Your task to perform on an android device: turn on airplane mode Image 0: 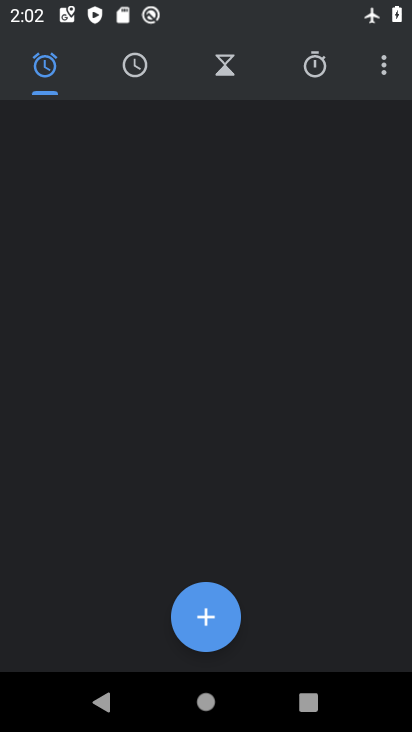
Step 0: drag from (340, 580) to (324, 138)
Your task to perform on an android device: turn on airplane mode Image 1: 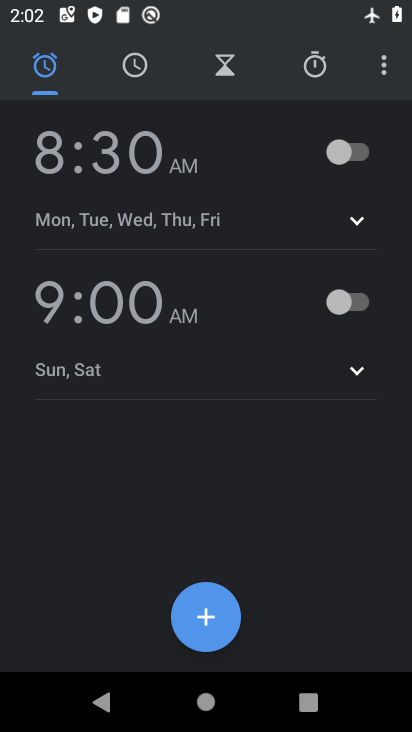
Step 1: press home button
Your task to perform on an android device: turn on airplane mode Image 2: 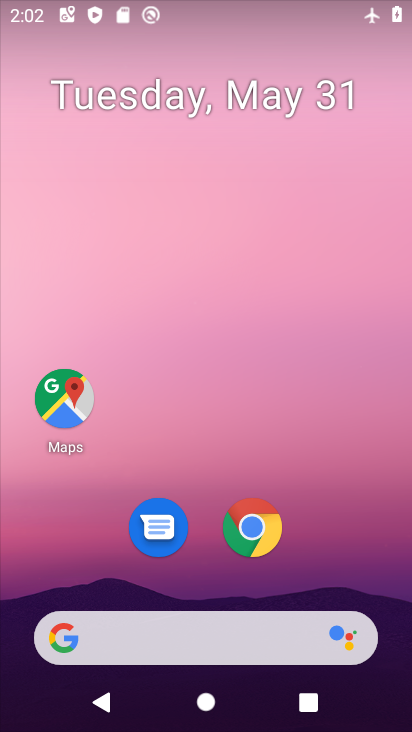
Step 2: drag from (331, 560) to (274, 94)
Your task to perform on an android device: turn on airplane mode Image 3: 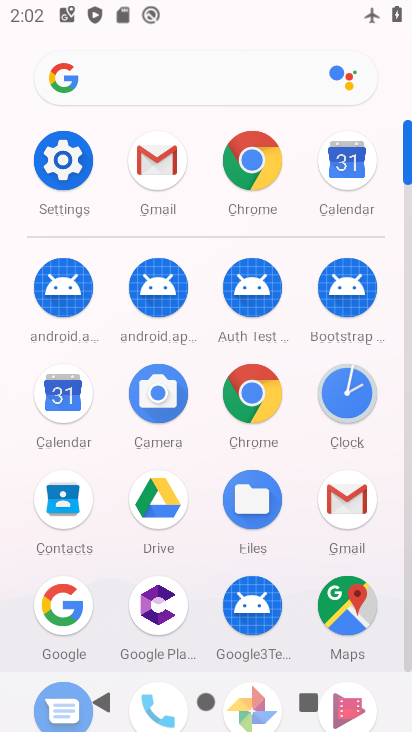
Step 3: click (73, 166)
Your task to perform on an android device: turn on airplane mode Image 4: 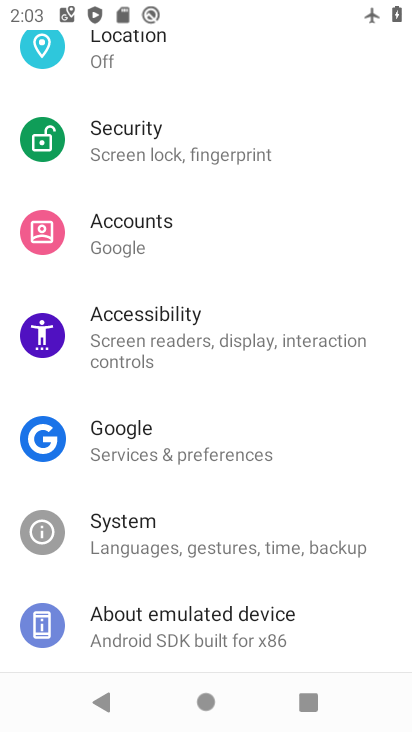
Step 4: drag from (172, 259) to (156, 667)
Your task to perform on an android device: turn on airplane mode Image 5: 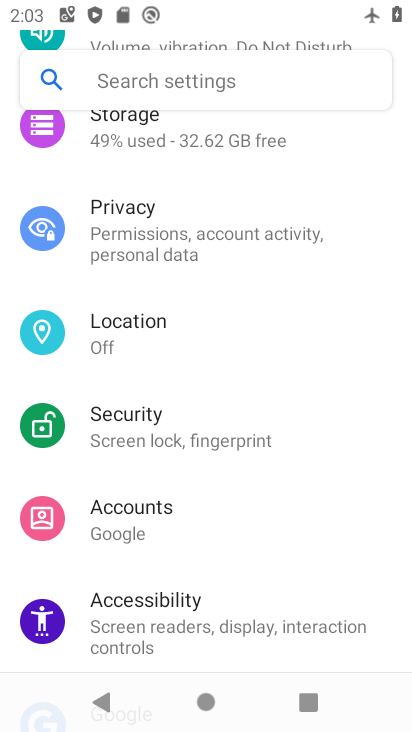
Step 5: drag from (153, 202) to (162, 614)
Your task to perform on an android device: turn on airplane mode Image 6: 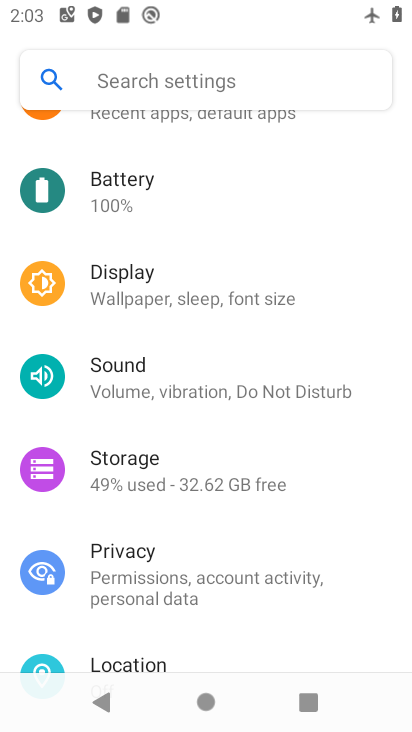
Step 6: drag from (155, 281) to (152, 583)
Your task to perform on an android device: turn on airplane mode Image 7: 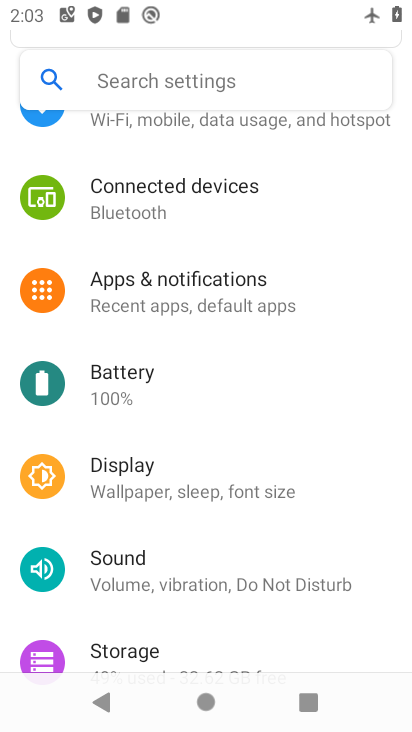
Step 7: drag from (166, 223) to (193, 557)
Your task to perform on an android device: turn on airplane mode Image 8: 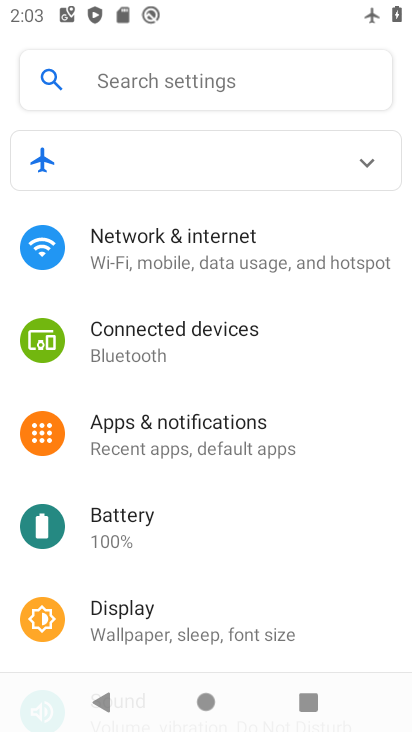
Step 8: click (99, 257)
Your task to perform on an android device: turn on airplane mode Image 9: 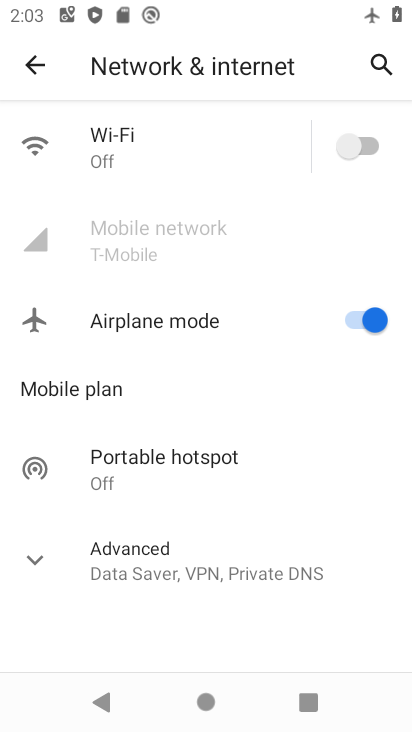
Step 9: task complete